Your task to perform on an android device: Open maps Image 0: 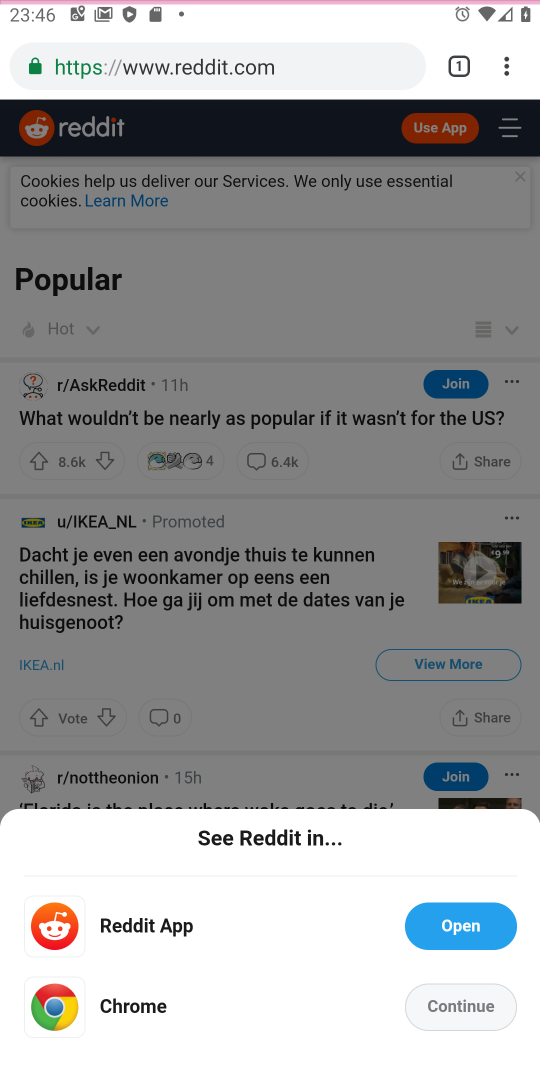
Step 0: click (265, 185)
Your task to perform on an android device: Open maps Image 1: 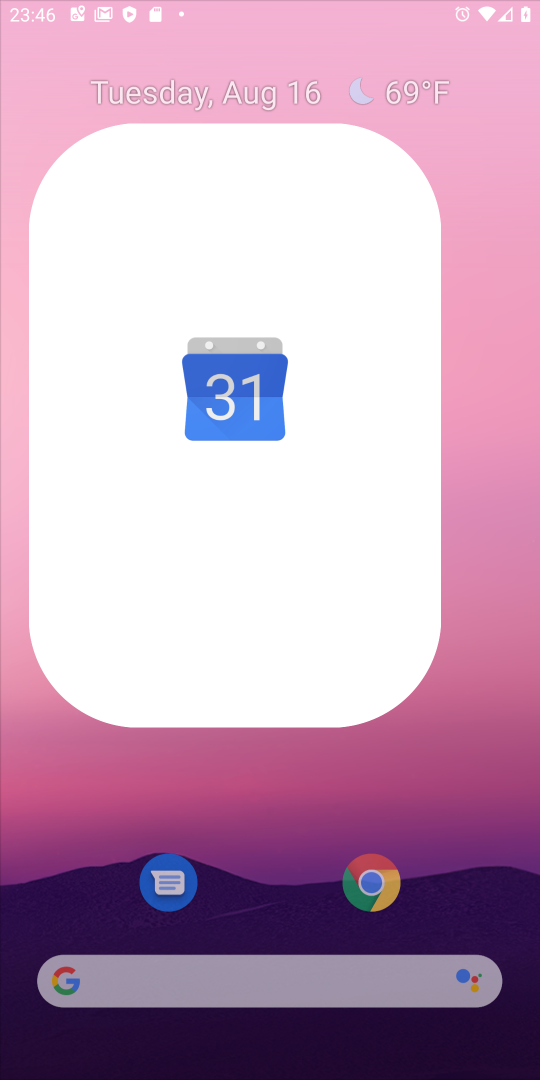
Step 1: drag from (256, 830) to (291, 220)
Your task to perform on an android device: Open maps Image 2: 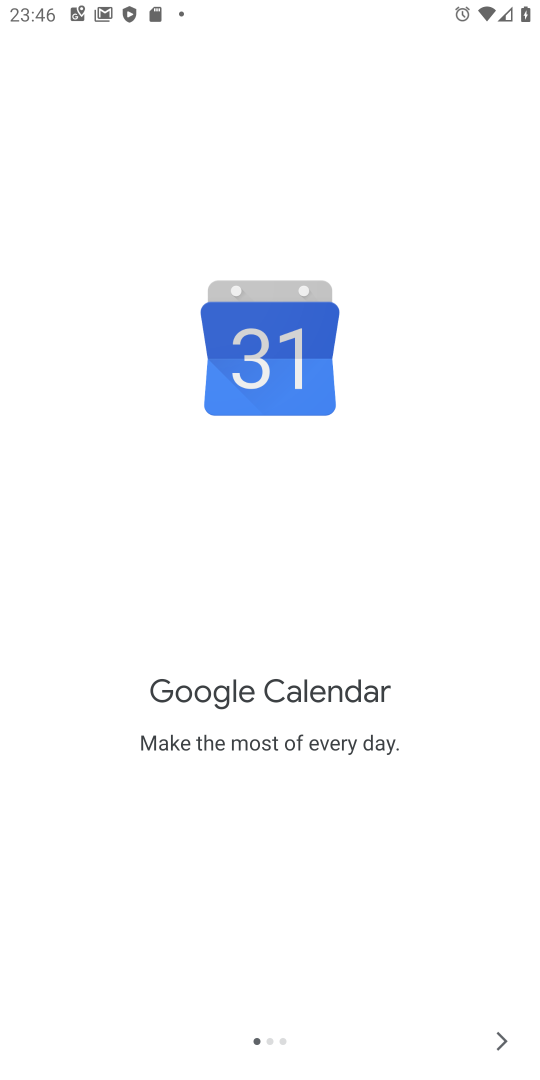
Step 2: press home button
Your task to perform on an android device: Open maps Image 3: 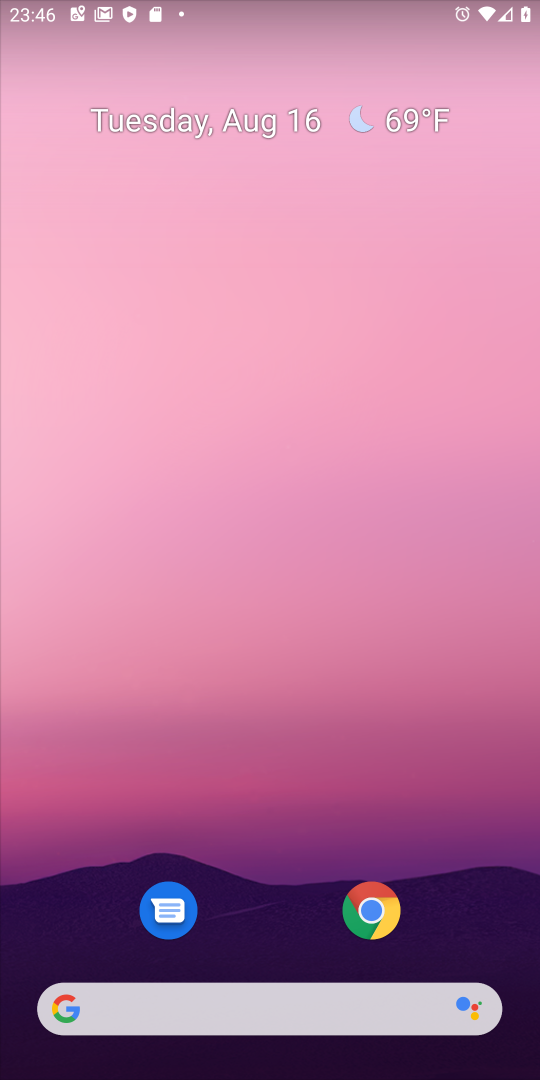
Step 3: drag from (267, 903) to (404, 195)
Your task to perform on an android device: Open maps Image 4: 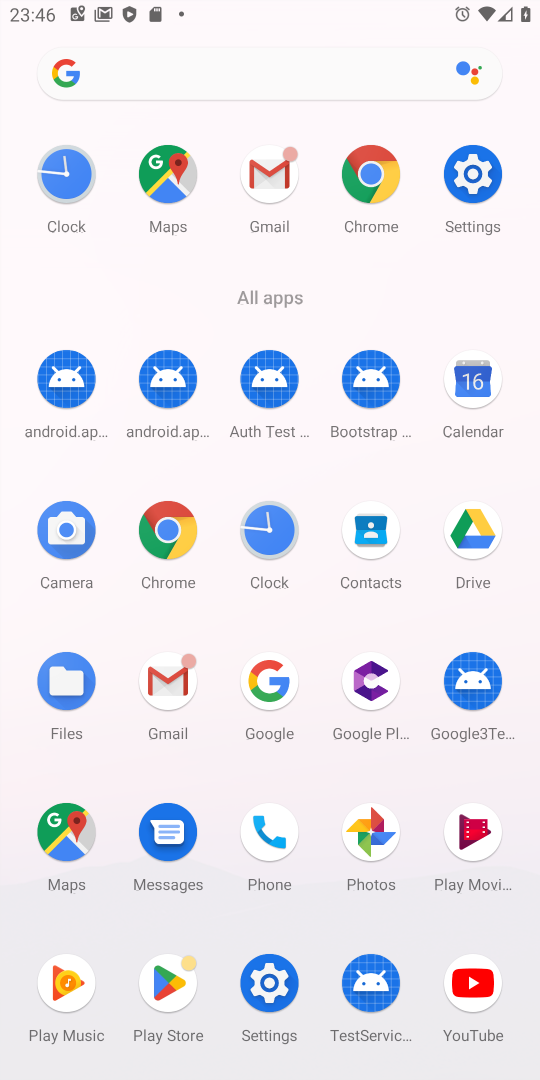
Step 4: click (72, 822)
Your task to perform on an android device: Open maps Image 5: 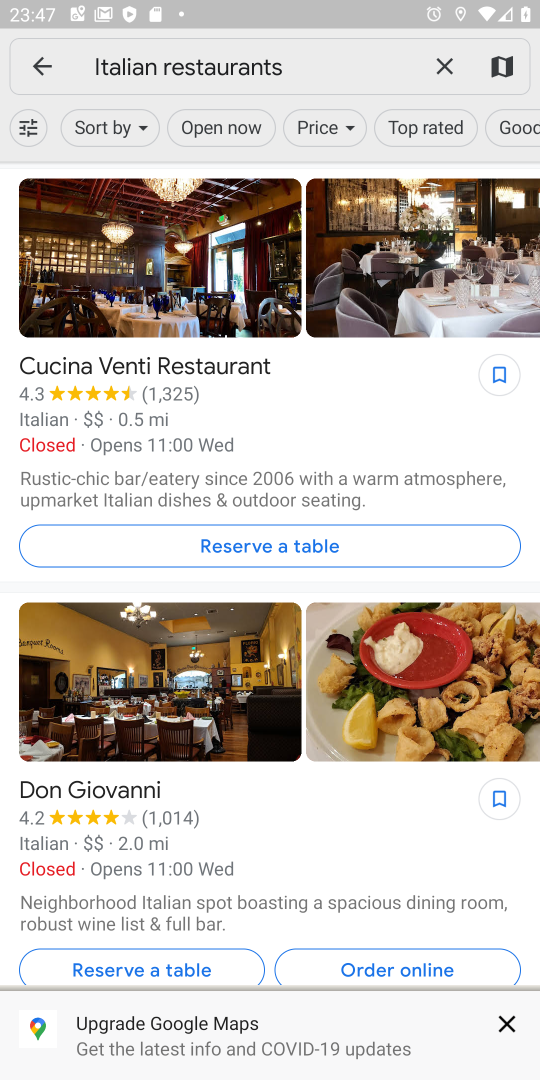
Step 5: task complete